Your task to perform on an android device: Clear the cart on newegg. Search for "razer kraken" on newegg, select the first entry, add it to the cart, then select checkout. Image 0: 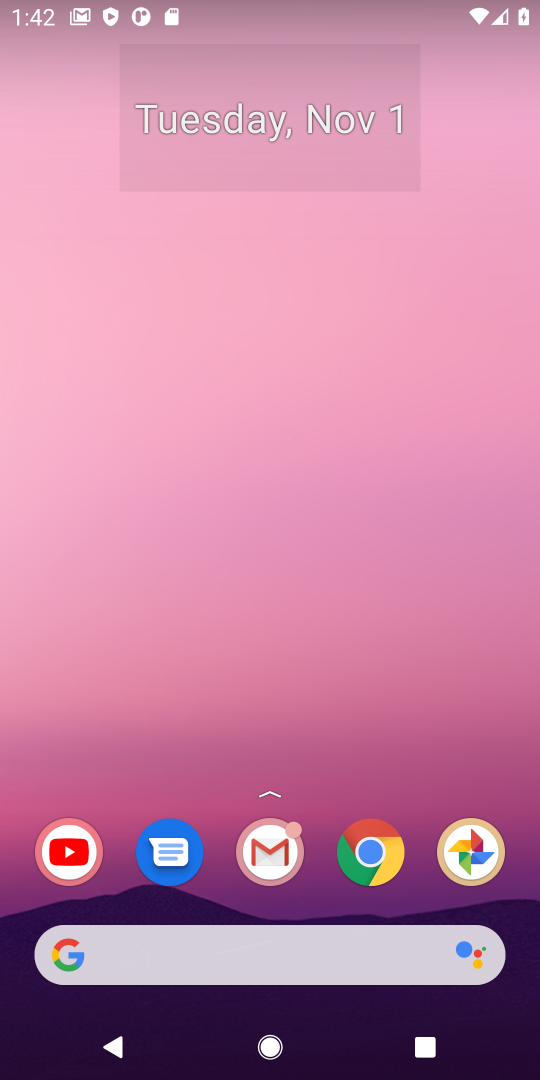
Step 0: click (246, 950)
Your task to perform on an android device: Clear the cart on newegg. Search for "razer kraken" on newegg, select the first entry, add it to the cart, then select checkout. Image 1: 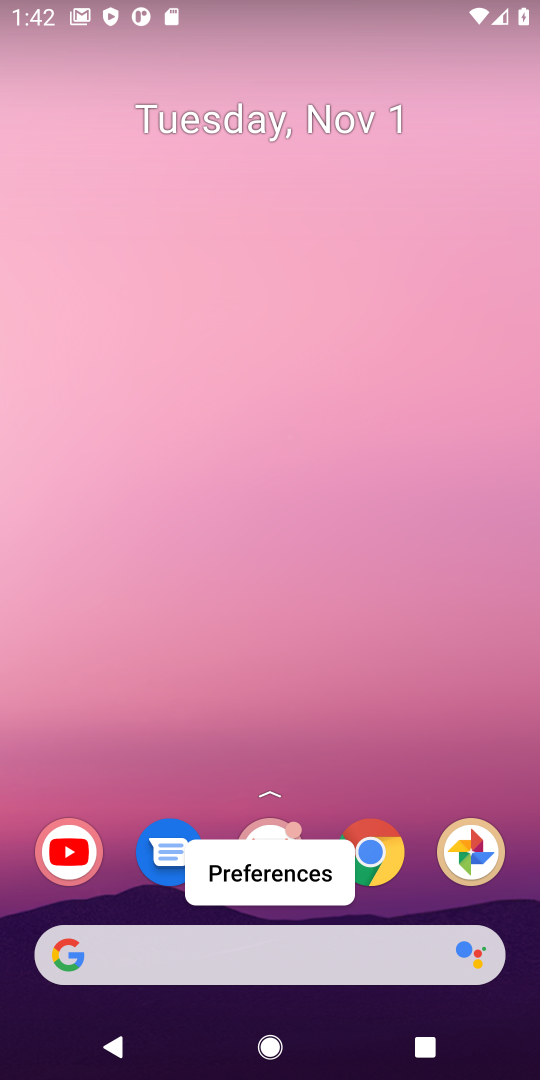
Step 1: click (246, 993)
Your task to perform on an android device: Clear the cart on newegg. Search for "razer kraken" on newegg, select the first entry, add it to the cart, then select checkout. Image 2: 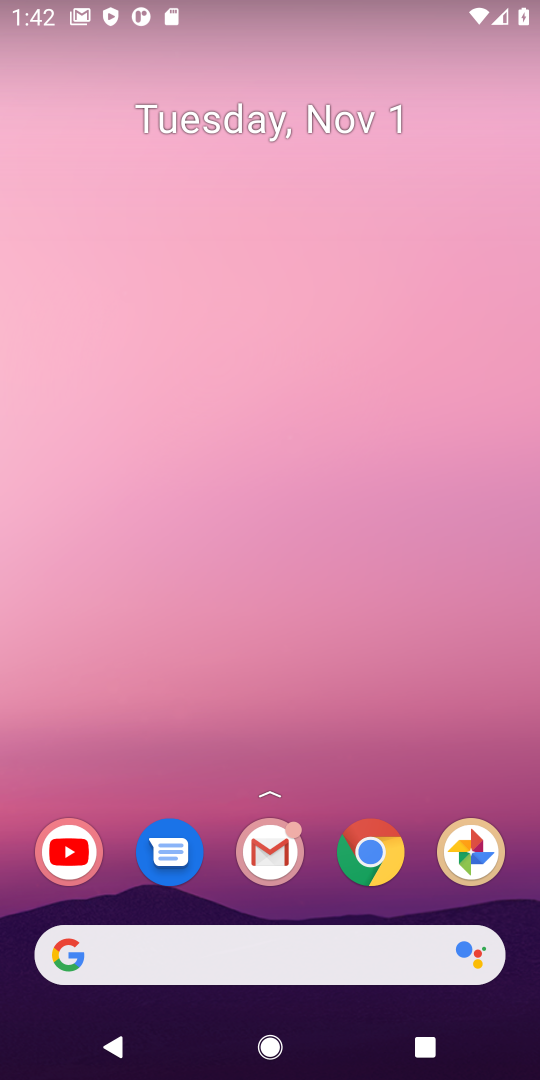
Step 2: click (246, 985)
Your task to perform on an android device: Clear the cart on newegg. Search for "razer kraken" on newegg, select the first entry, add it to the cart, then select checkout. Image 3: 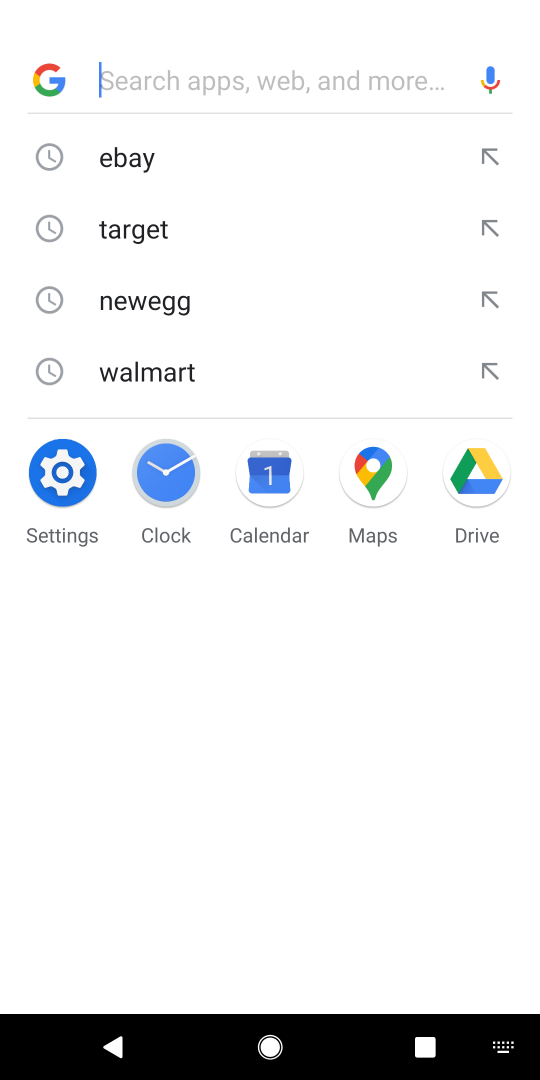
Step 3: type "razer kraken"
Your task to perform on an android device: Clear the cart on newegg. Search for "razer kraken" on newegg, select the first entry, add it to the cart, then select checkout. Image 4: 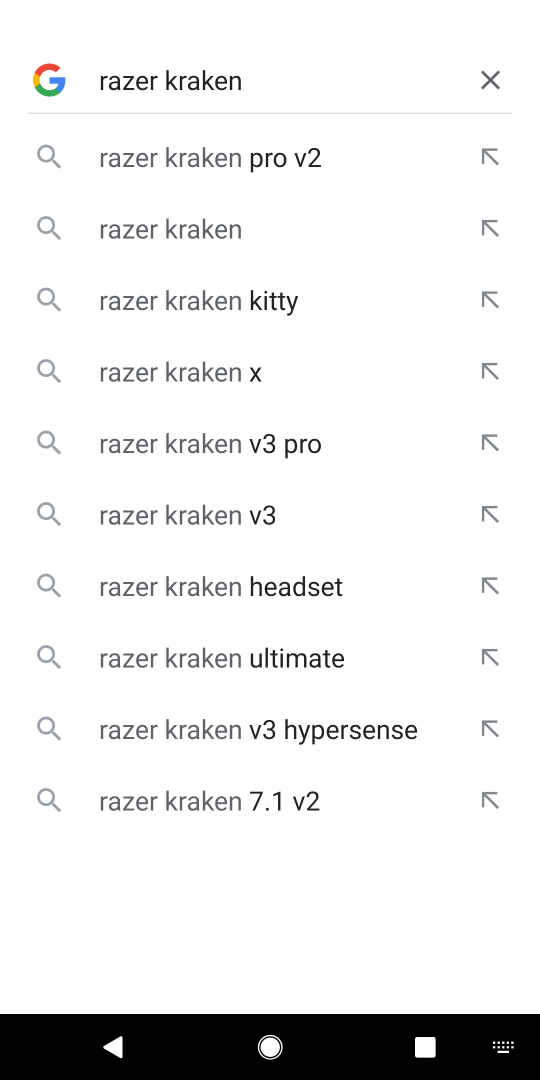
Step 4: type ""
Your task to perform on an android device: Clear the cart on newegg. Search for "razer kraken" on newegg, select the first entry, add it to the cart, then select checkout. Image 5: 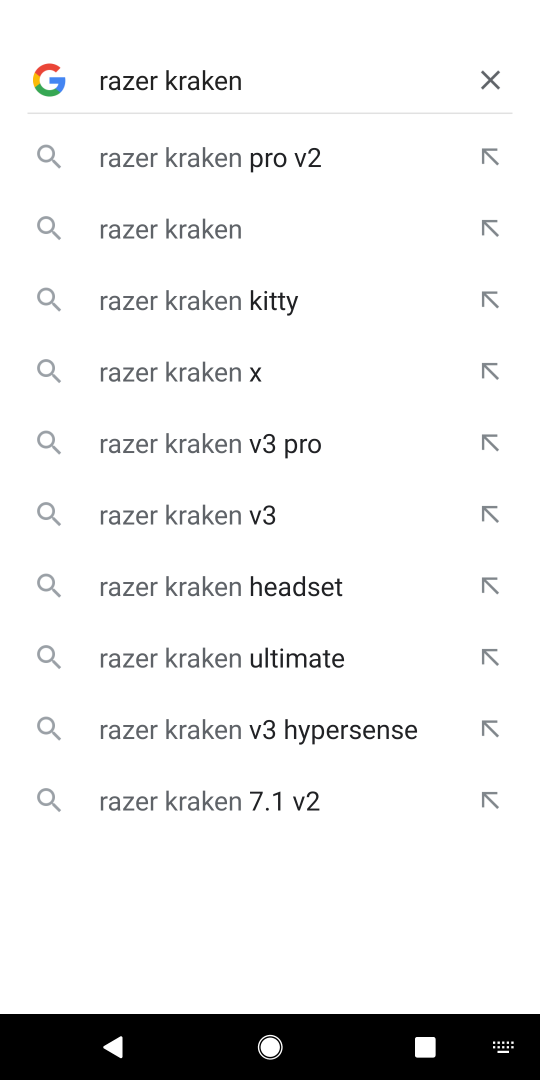
Step 5: press enter
Your task to perform on an android device: Clear the cart on newegg. Search for "razer kraken" on newegg, select the first entry, add it to the cart, then select checkout. Image 6: 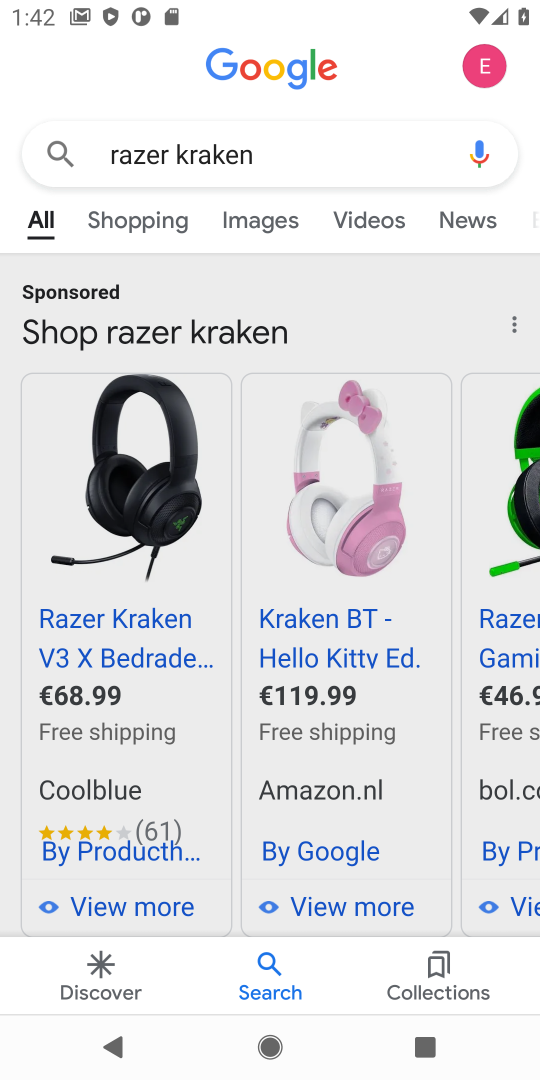
Step 6: drag from (236, 879) to (213, 220)
Your task to perform on an android device: Clear the cart on newegg. Search for "razer kraken" on newegg, select the first entry, add it to the cart, then select checkout. Image 7: 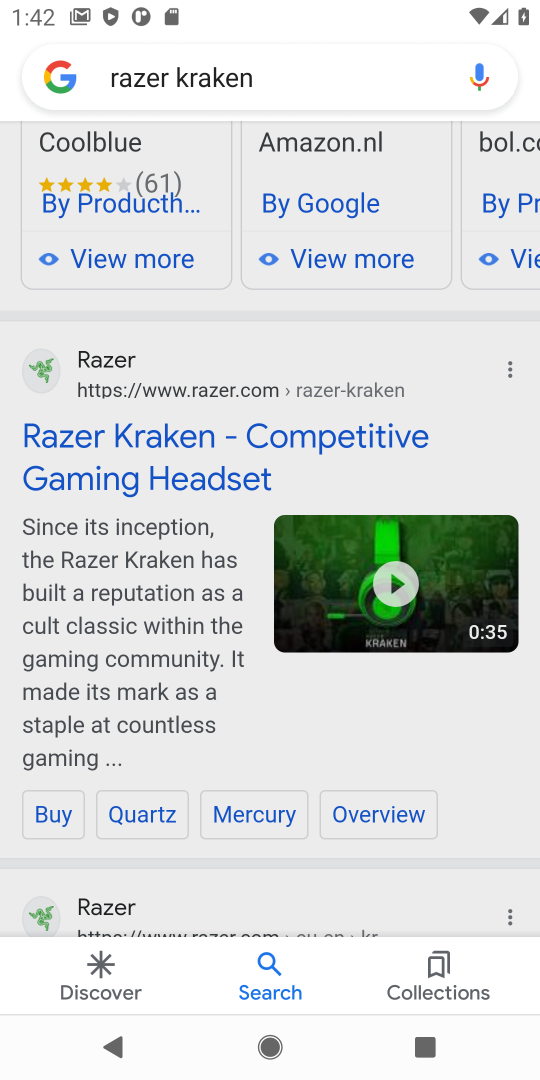
Step 7: drag from (257, 865) to (244, 552)
Your task to perform on an android device: Clear the cart on newegg. Search for "razer kraken" on newegg, select the first entry, add it to the cart, then select checkout. Image 8: 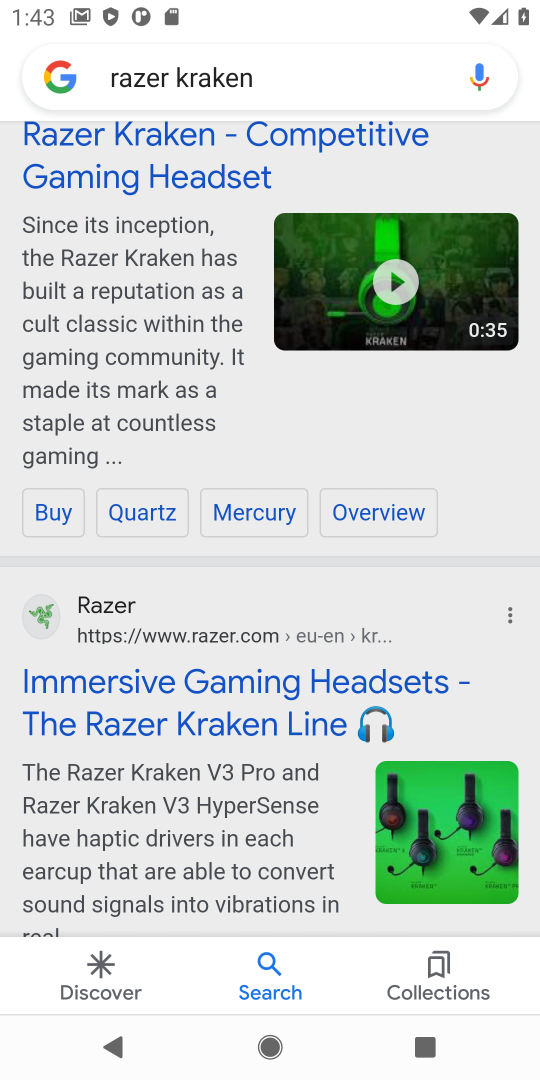
Step 8: drag from (255, 388) to (257, 509)
Your task to perform on an android device: Clear the cart on newegg. Search for "razer kraken" on newegg, select the first entry, add it to the cart, then select checkout. Image 9: 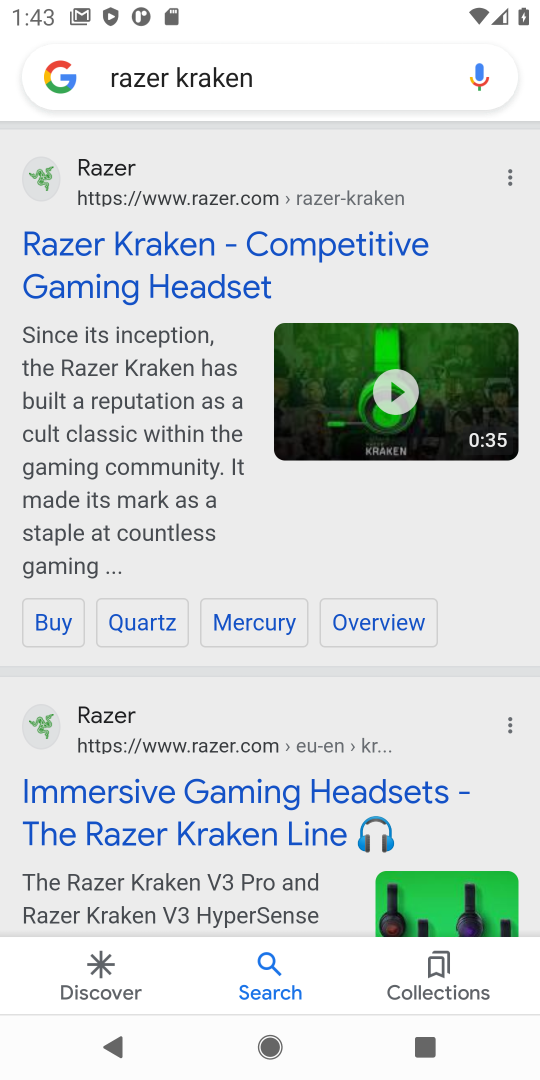
Step 9: click (185, 296)
Your task to perform on an android device: Clear the cart on newegg. Search for "razer kraken" on newegg, select the first entry, add it to the cart, then select checkout. Image 10: 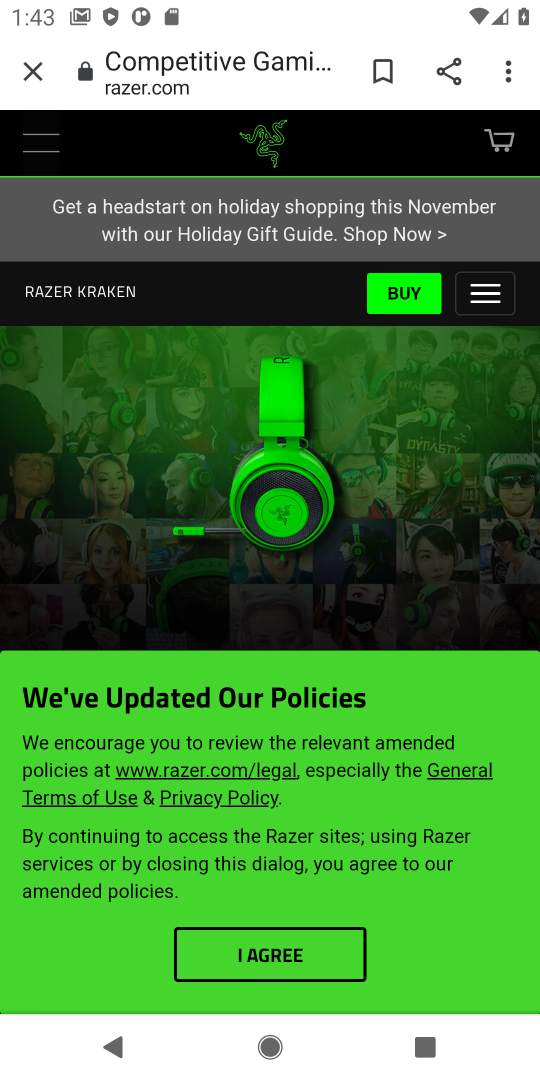
Step 10: click (326, 955)
Your task to perform on an android device: Clear the cart on newegg. Search for "razer kraken" on newegg, select the first entry, add it to the cart, then select checkout. Image 11: 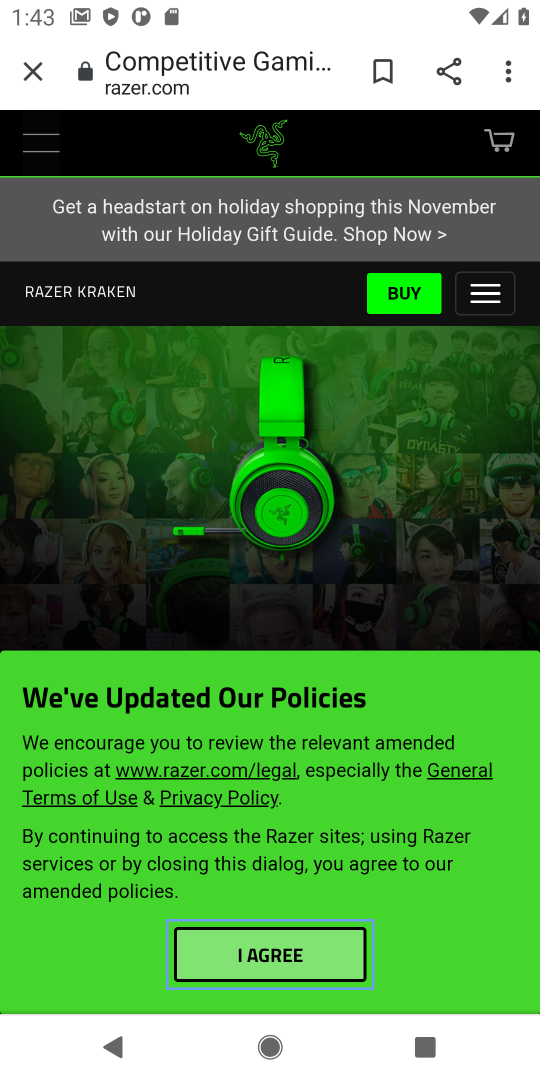
Step 11: click (284, 946)
Your task to perform on an android device: Clear the cart on newegg. Search for "razer kraken" on newegg, select the first entry, add it to the cart, then select checkout. Image 12: 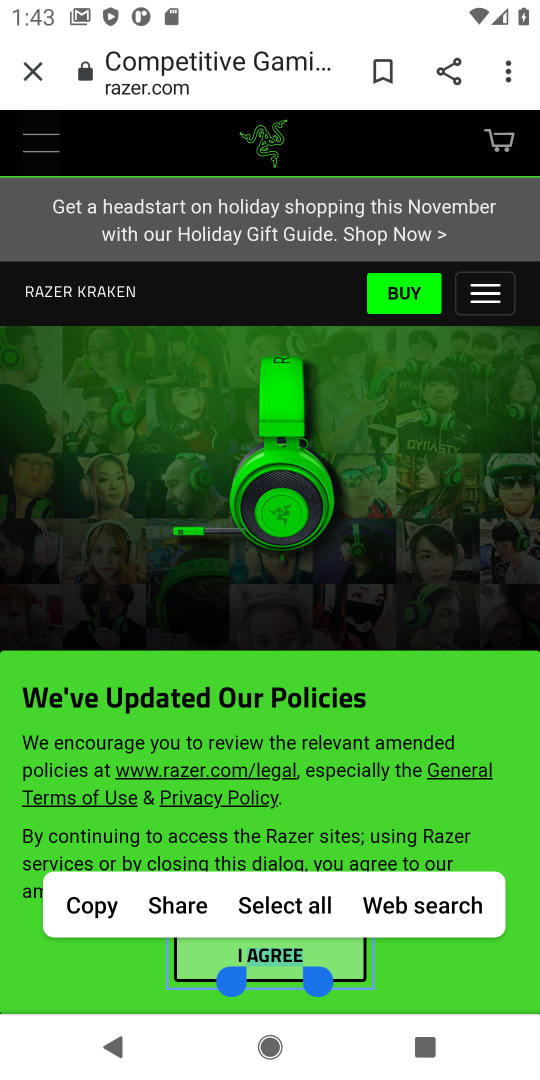
Step 12: click (284, 956)
Your task to perform on an android device: Clear the cart on newegg. Search for "razer kraken" on newegg, select the first entry, add it to the cart, then select checkout. Image 13: 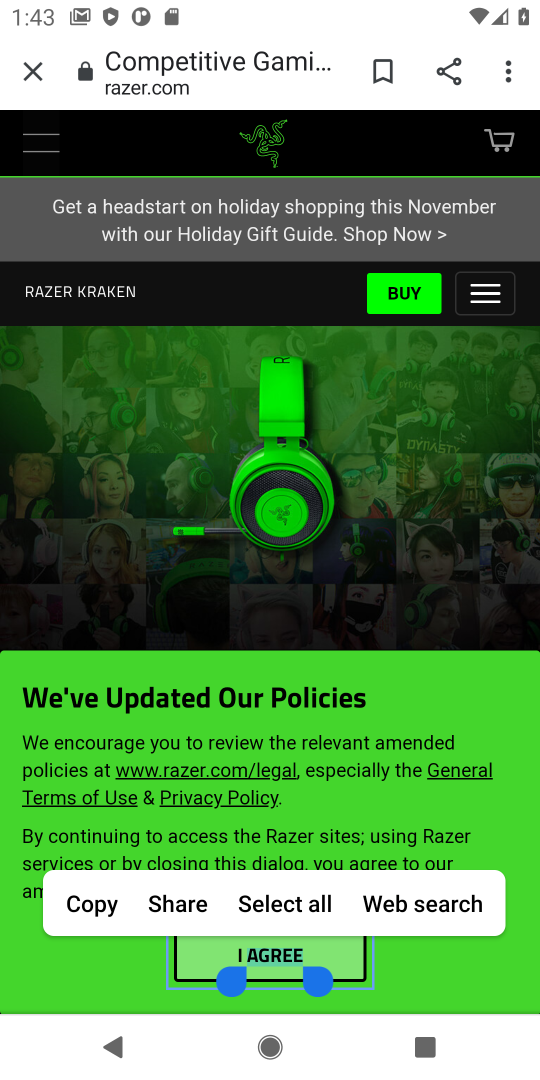
Step 13: click (144, 972)
Your task to perform on an android device: Clear the cart on newegg. Search for "razer kraken" on newegg, select the first entry, add it to the cart, then select checkout. Image 14: 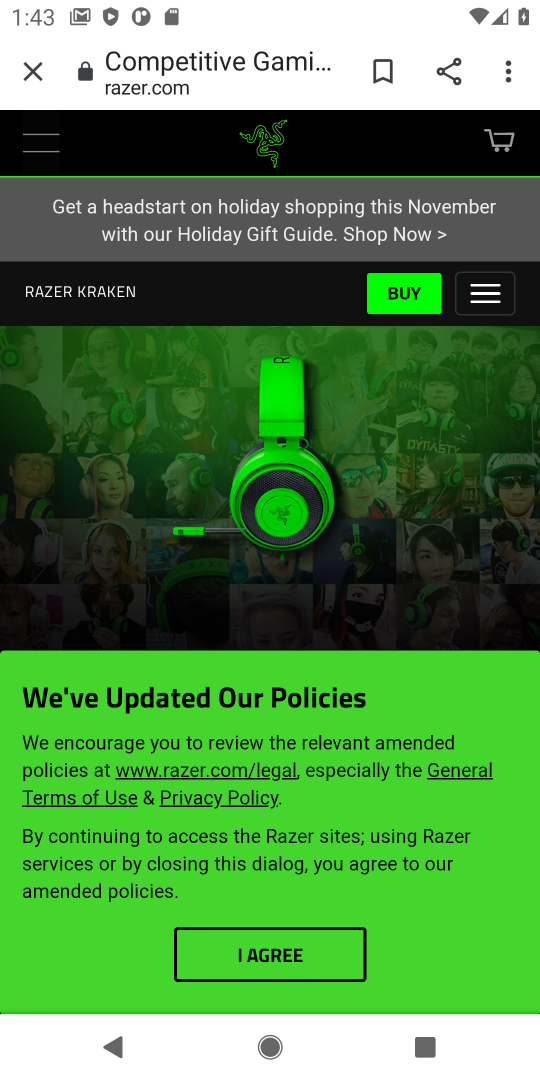
Step 14: click (151, 987)
Your task to perform on an android device: Clear the cart on newegg. Search for "razer kraken" on newegg, select the first entry, add it to the cart, then select checkout. Image 15: 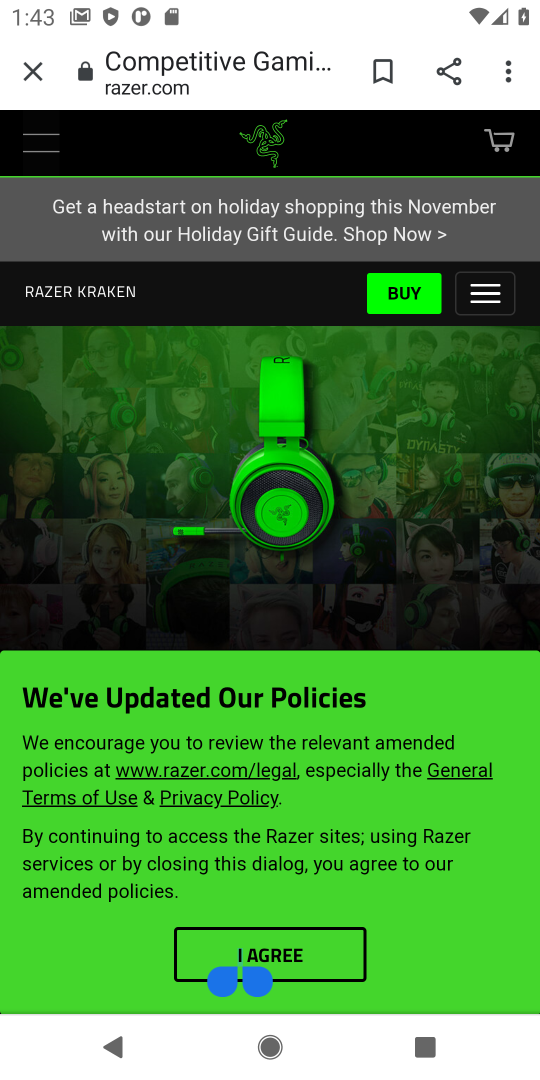
Step 15: click (262, 960)
Your task to perform on an android device: Clear the cart on newegg. Search for "razer kraken" on newegg, select the first entry, add it to the cart, then select checkout. Image 16: 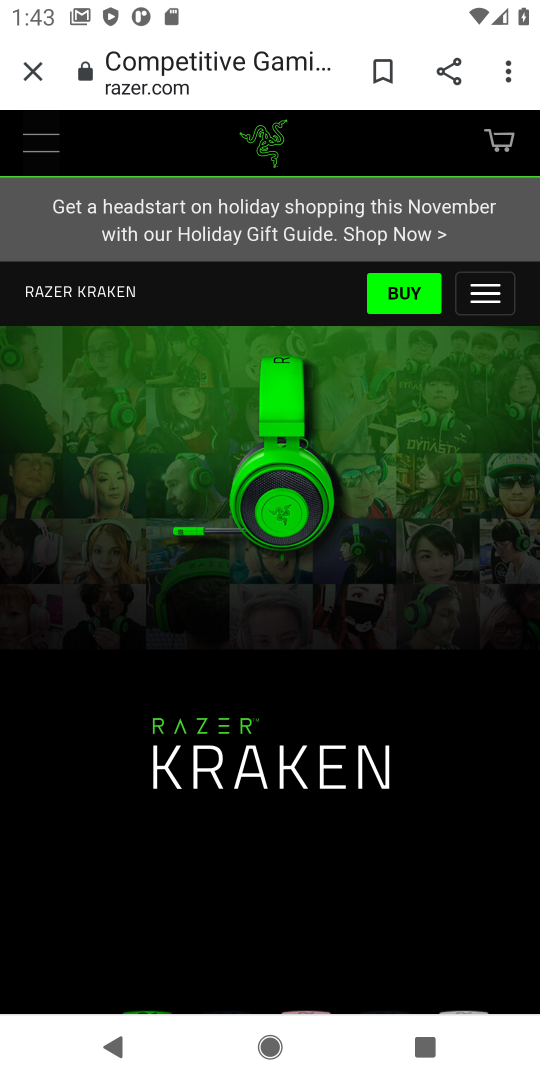
Step 16: click (274, 953)
Your task to perform on an android device: Clear the cart on newegg. Search for "razer kraken" on newegg, select the first entry, add it to the cart, then select checkout. Image 17: 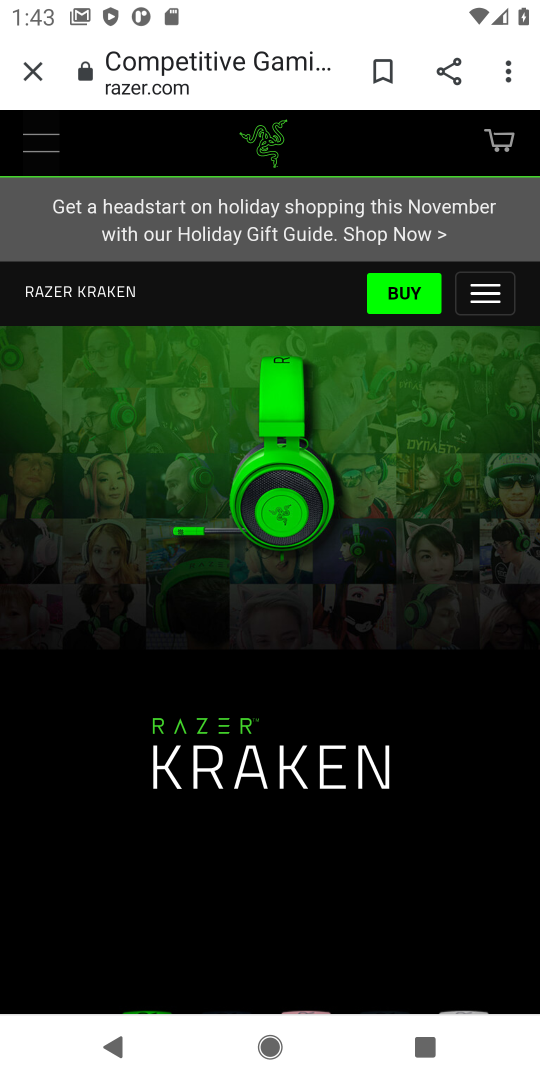
Step 17: task complete